Your task to perform on an android device: Go to privacy settings Image 0: 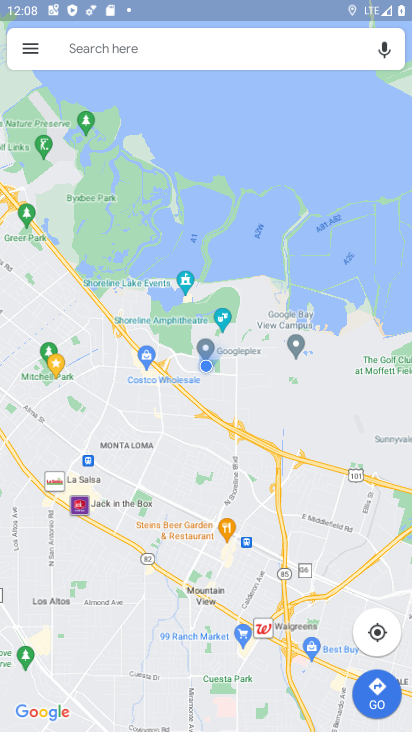
Step 0: press home button
Your task to perform on an android device: Go to privacy settings Image 1: 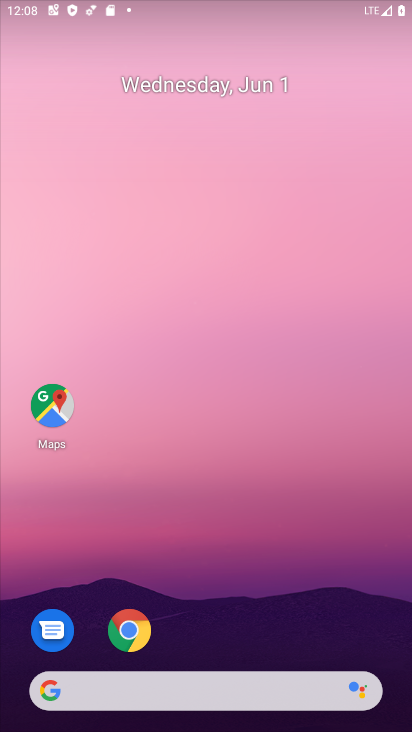
Step 1: drag from (282, 616) to (291, 102)
Your task to perform on an android device: Go to privacy settings Image 2: 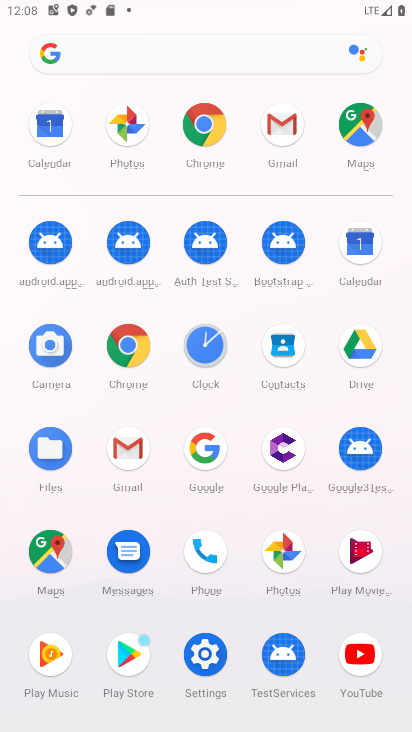
Step 2: click (216, 651)
Your task to perform on an android device: Go to privacy settings Image 3: 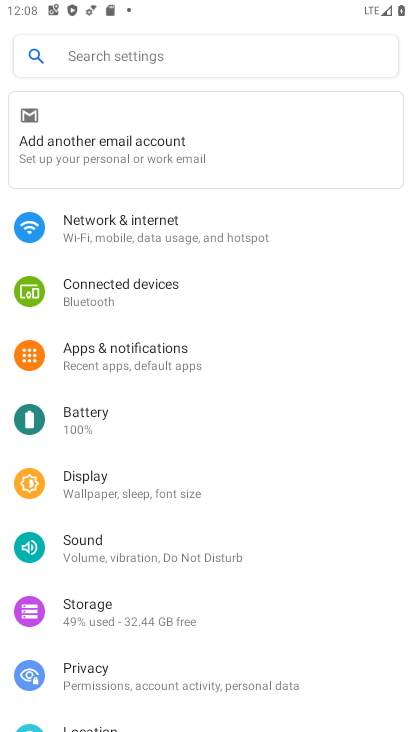
Step 3: click (127, 676)
Your task to perform on an android device: Go to privacy settings Image 4: 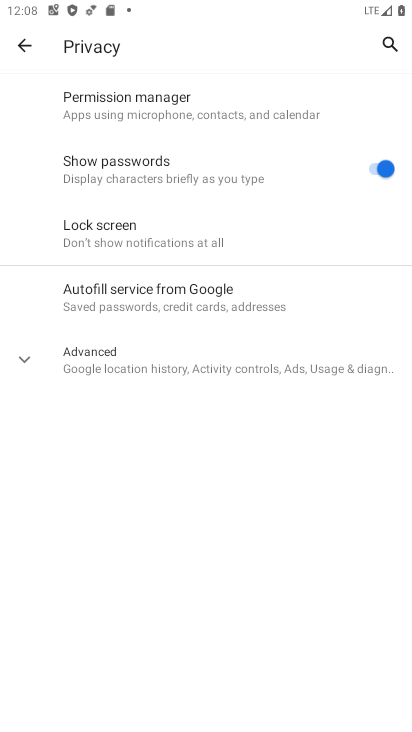
Step 4: task complete